Your task to perform on an android device: change alarm snooze length Image 0: 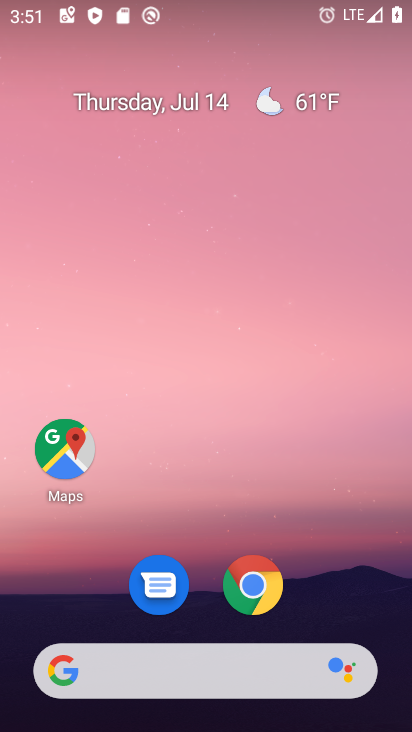
Step 0: drag from (329, 558) to (379, 17)
Your task to perform on an android device: change alarm snooze length Image 1: 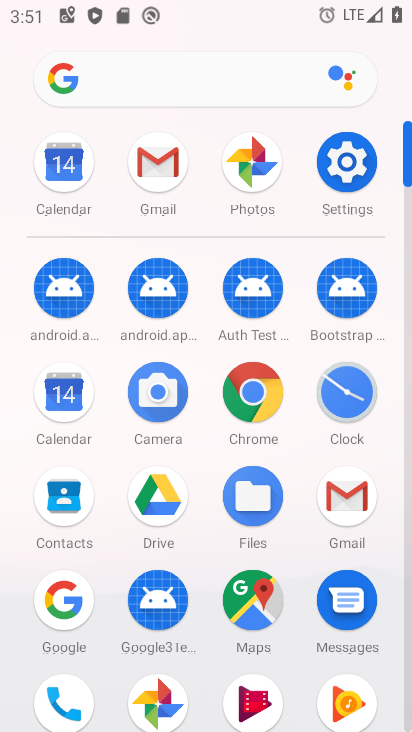
Step 1: click (366, 389)
Your task to perform on an android device: change alarm snooze length Image 2: 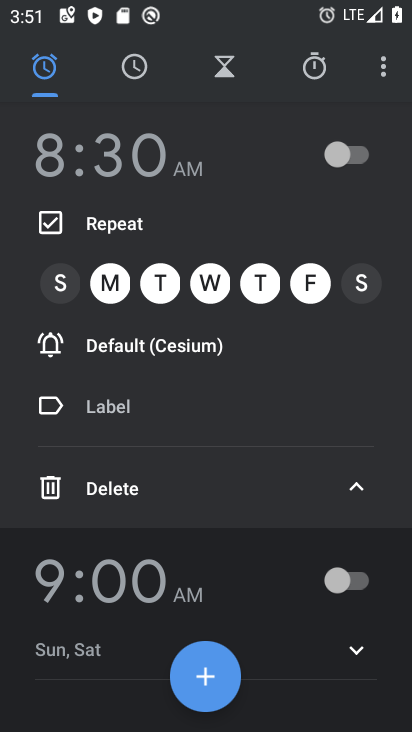
Step 2: click (140, 68)
Your task to perform on an android device: change alarm snooze length Image 3: 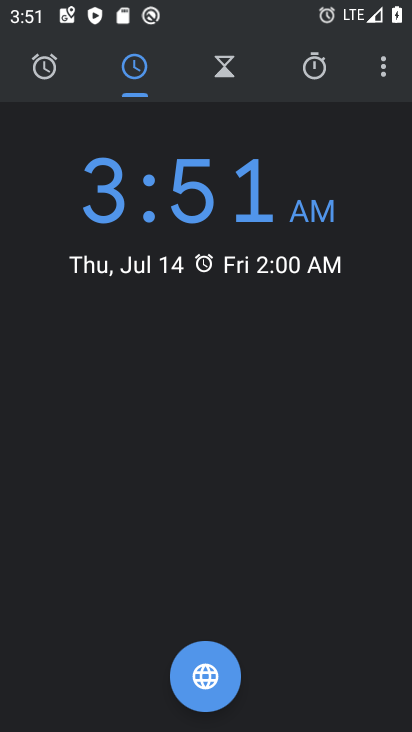
Step 3: click (382, 68)
Your task to perform on an android device: change alarm snooze length Image 4: 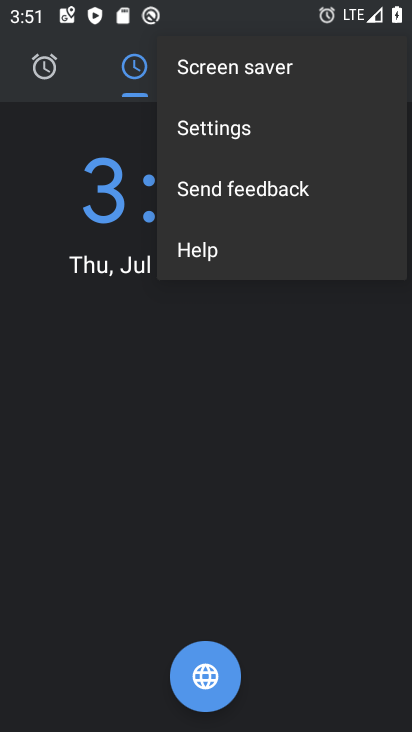
Step 4: click (267, 131)
Your task to perform on an android device: change alarm snooze length Image 5: 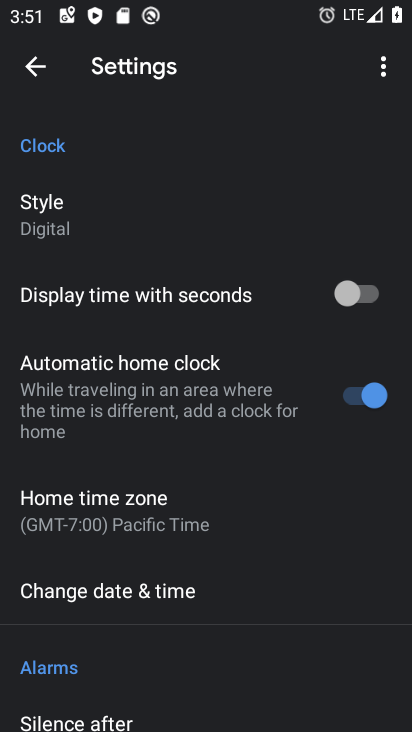
Step 5: drag from (215, 563) to (219, 157)
Your task to perform on an android device: change alarm snooze length Image 6: 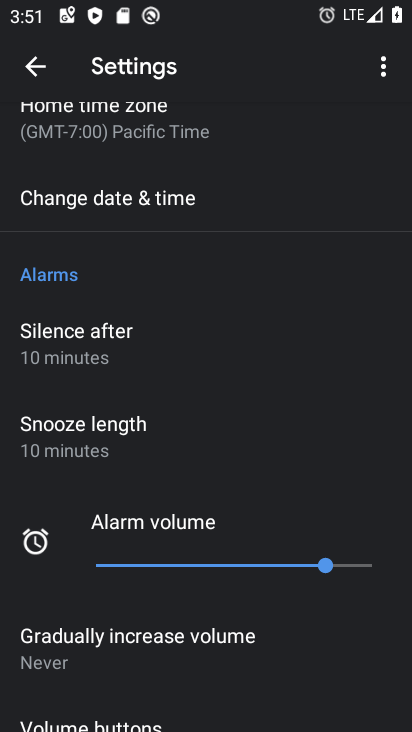
Step 6: click (91, 437)
Your task to perform on an android device: change alarm snooze length Image 7: 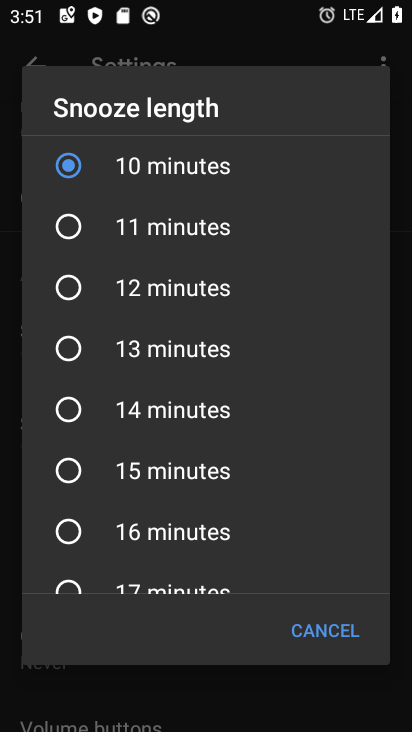
Step 7: click (68, 283)
Your task to perform on an android device: change alarm snooze length Image 8: 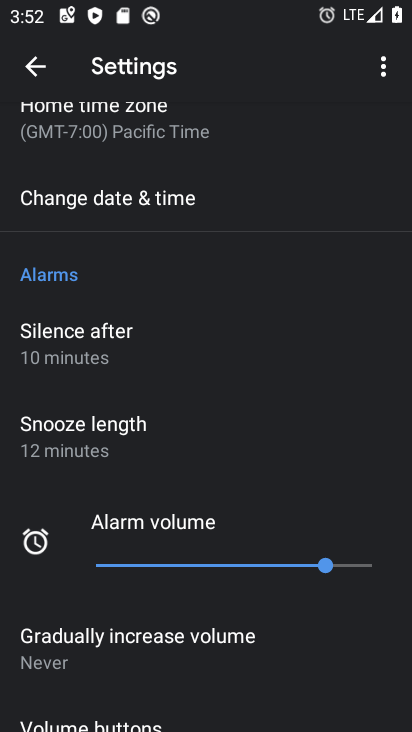
Step 8: task complete